Your task to perform on an android device: move an email to a new category in the gmail app Image 0: 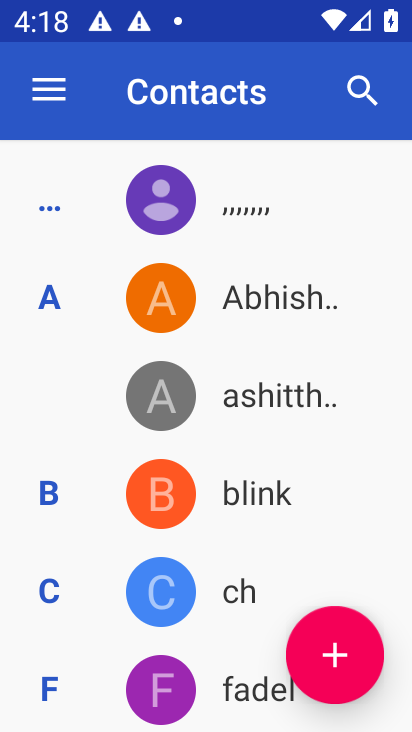
Step 0: press home button
Your task to perform on an android device: move an email to a new category in the gmail app Image 1: 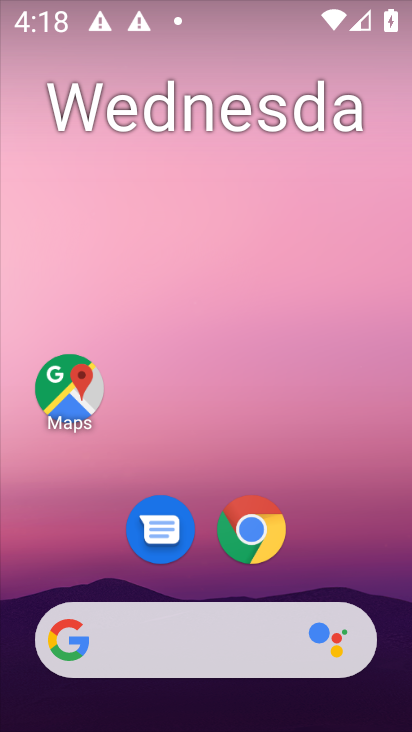
Step 1: drag from (190, 592) to (206, 124)
Your task to perform on an android device: move an email to a new category in the gmail app Image 2: 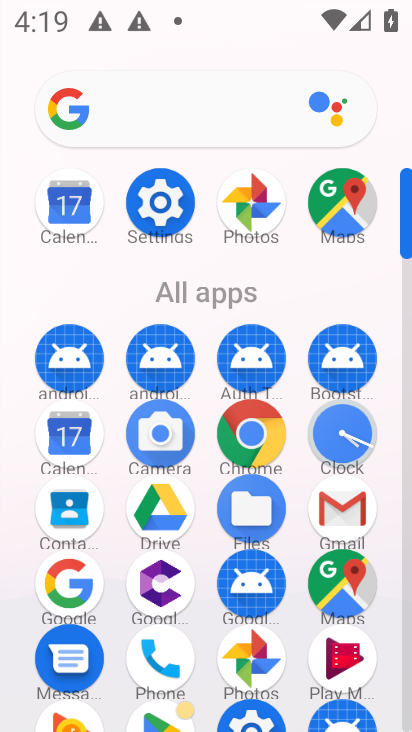
Step 2: click (352, 513)
Your task to perform on an android device: move an email to a new category in the gmail app Image 3: 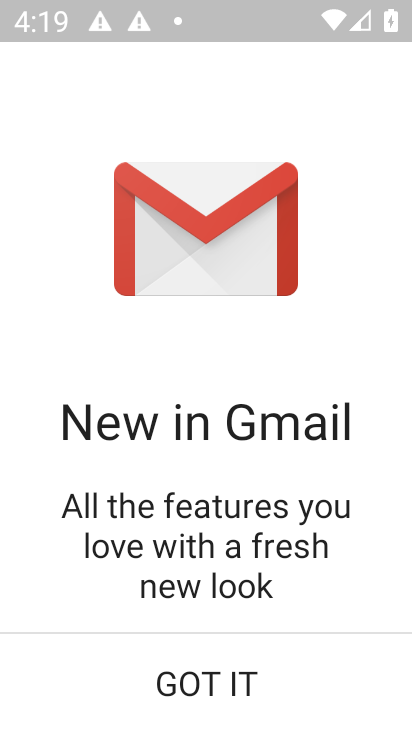
Step 3: click (217, 686)
Your task to perform on an android device: move an email to a new category in the gmail app Image 4: 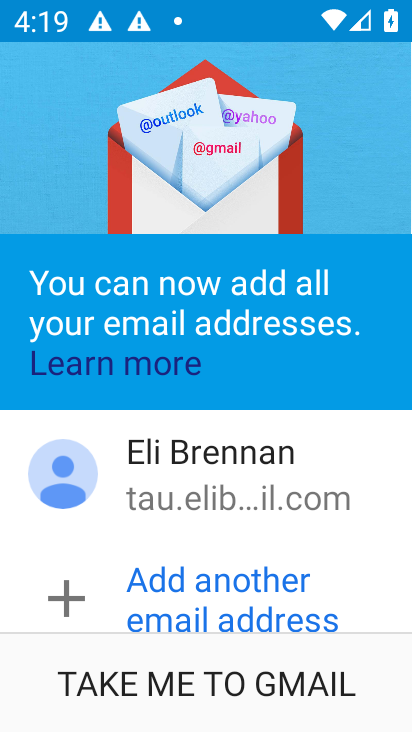
Step 4: click (212, 675)
Your task to perform on an android device: move an email to a new category in the gmail app Image 5: 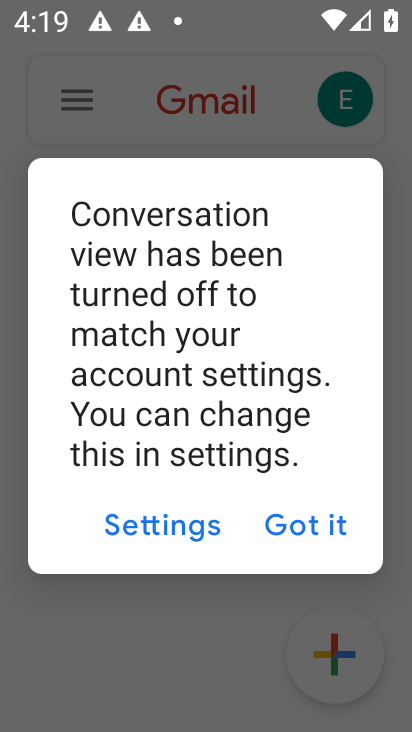
Step 5: click (303, 523)
Your task to perform on an android device: move an email to a new category in the gmail app Image 6: 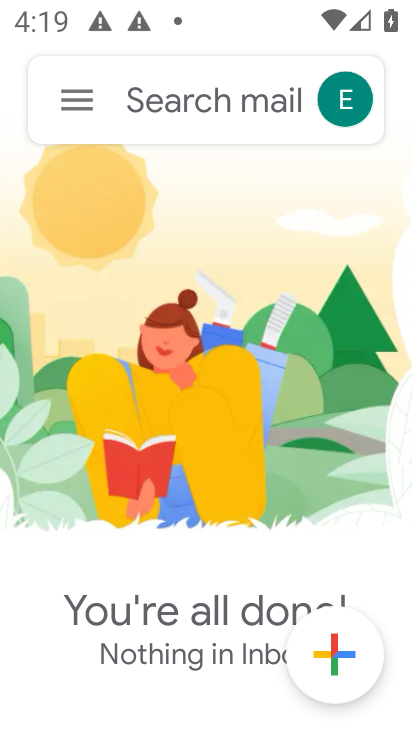
Step 6: task complete